Your task to perform on an android device: Open settings on Google Maps Image 0: 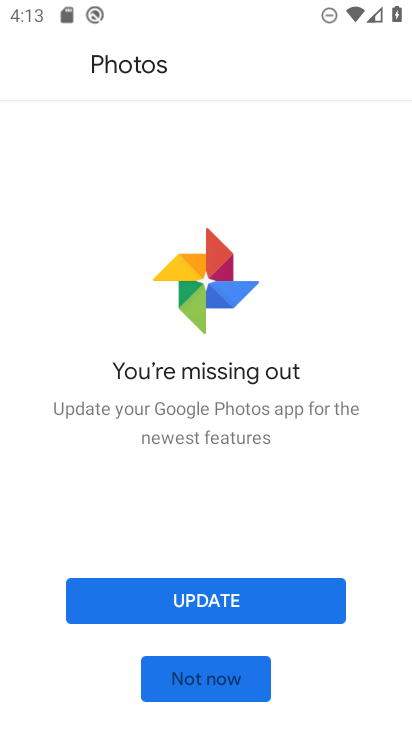
Step 0: press home button
Your task to perform on an android device: Open settings on Google Maps Image 1: 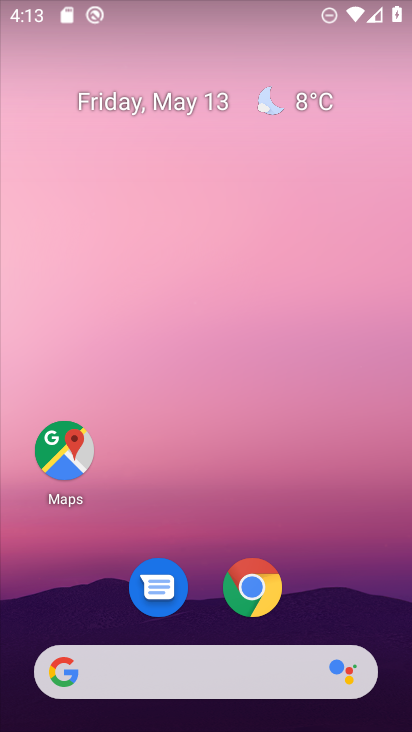
Step 1: click (67, 459)
Your task to perform on an android device: Open settings on Google Maps Image 2: 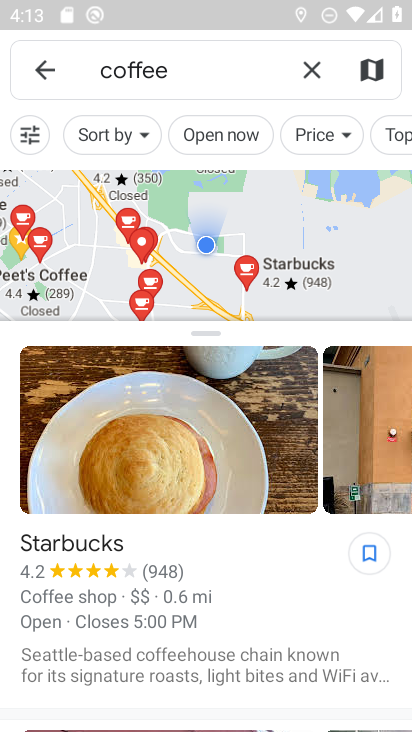
Step 2: click (322, 70)
Your task to perform on an android device: Open settings on Google Maps Image 3: 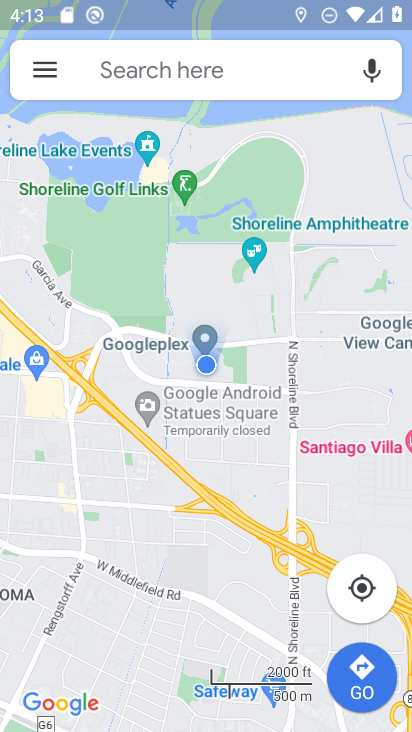
Step 3: click (45, 68)
Your task to perform on an android device: Open settings on Google Maps Image 4: 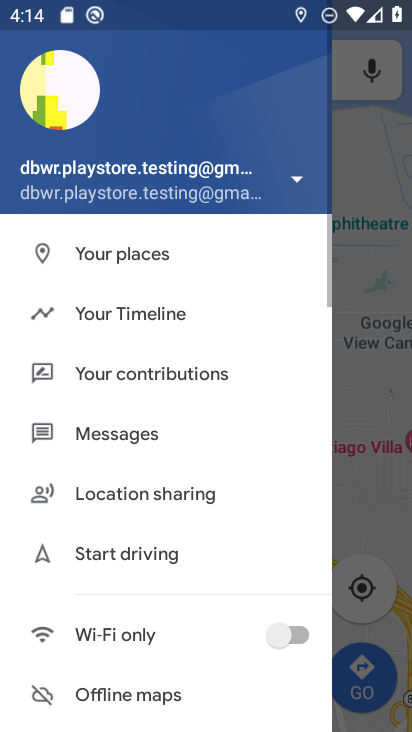
Step 4: drag from (91, 636) to (130, 340)
Your task to perform on an android device: Open settings on Google Maps Image 5: 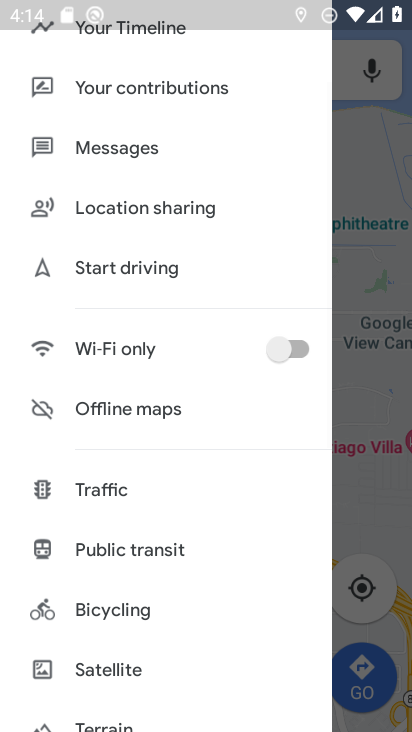
Step 5: drag from (128, 620) to (146, 365)
Your task to perform on an android device: Open settings on Google Maps Image 6: 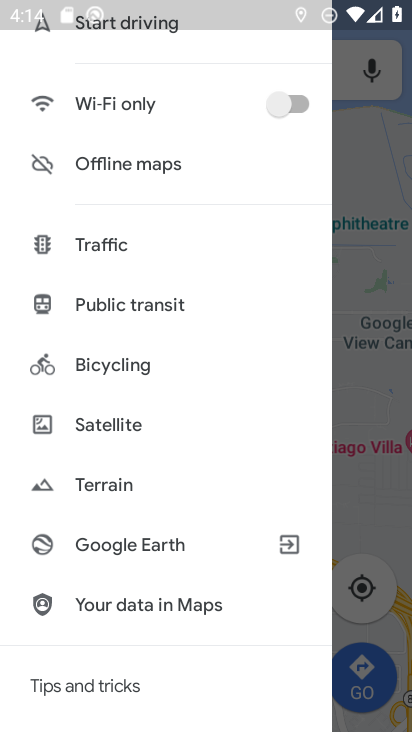
Step 6: drag from (106, 628) to (151, 368)
Your task to perform on an android device: Open settings on Google Maps Image 7: 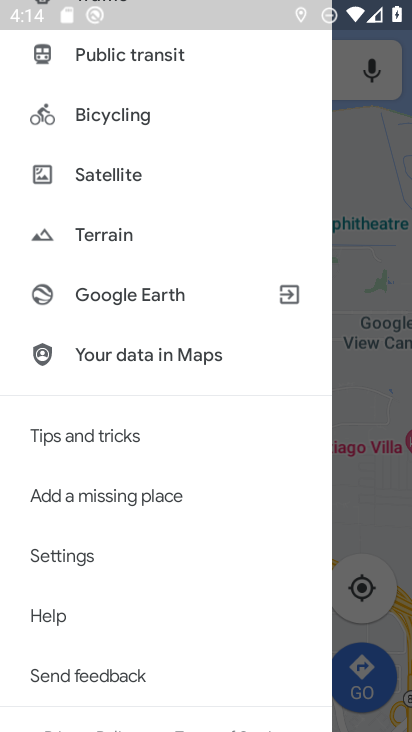
Step 7: click (82, 566)
Your task to perform on an android device: Open settings on Google Maps Image 8: 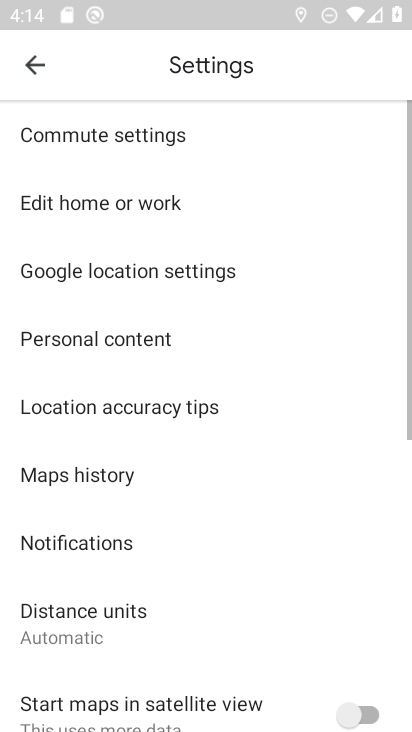
Step 8: drag from (82, 566) to (180, 355)
Your task to perform on an android device: Open settings on Google Maps Image 9: 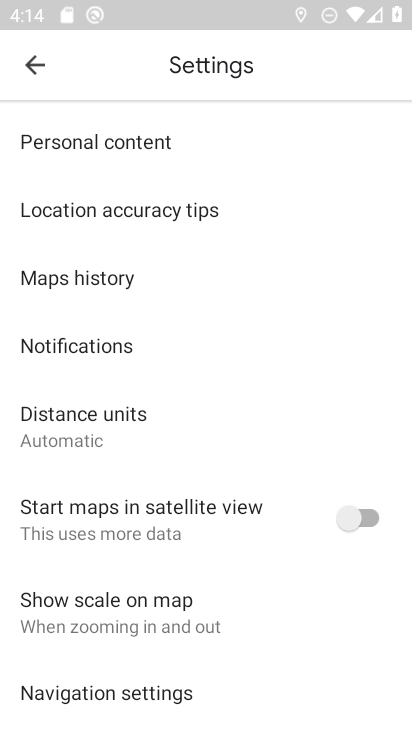
Step 9: drag from (182, 482) to (228, 190)
Your task to perform on an android device: Open settings on Google Maps Image 10: 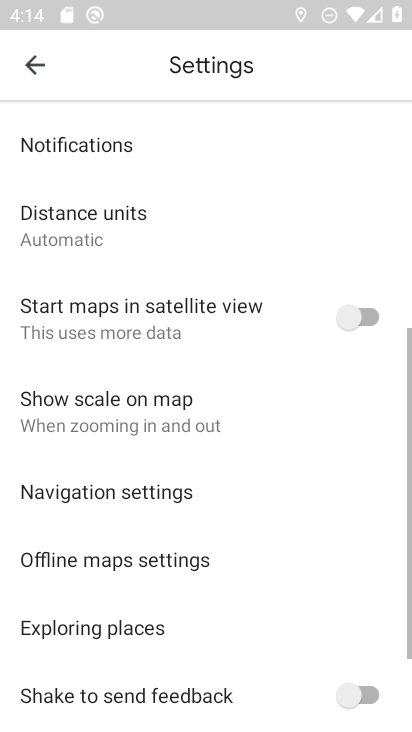
Step 10: drag from (205, 578) to (226, 341)
Your task to perform on an android device: Open settings on Google Maps Image 11: 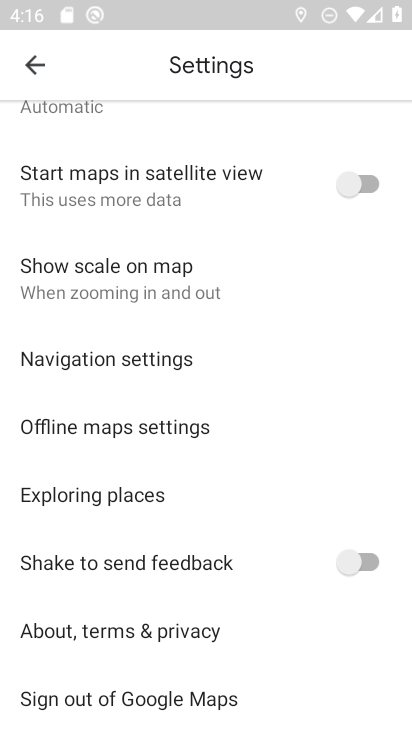
Step 11: press home button
Your task to perform on an android device: Open settings on Google Maps Image 12: 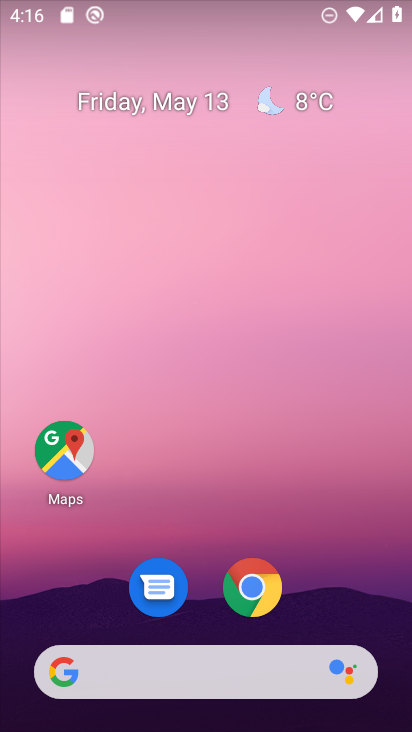
Step 12: click (73, 456)
Your task to perform on an android device: Open settings on Google Maps Image 13: 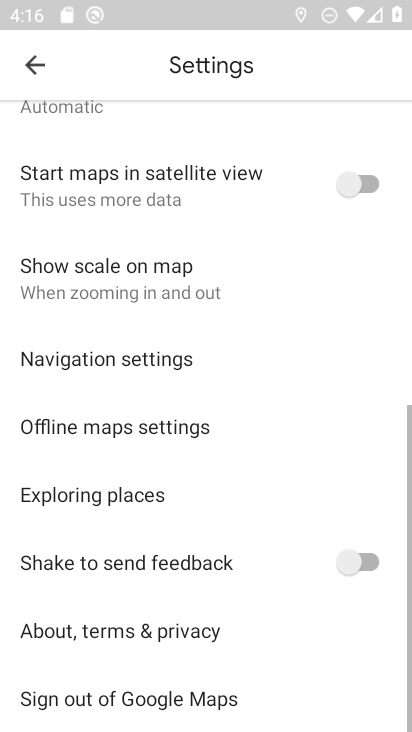
Step 13: task complete